Your task to perform on an android device: open app "Expedia: Hotels, Flights & Car" (install if not already installed) Image 0: 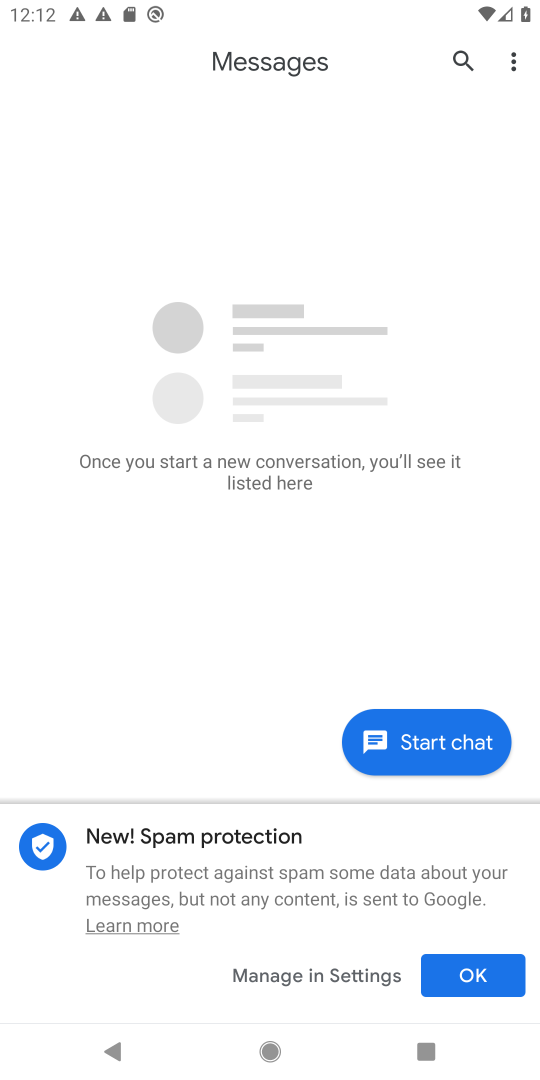
Step 0: press home button
Your task to perform on an android device: open app "Expedia: Hotels, Flights & Car" (install if not already installed) Image 1: 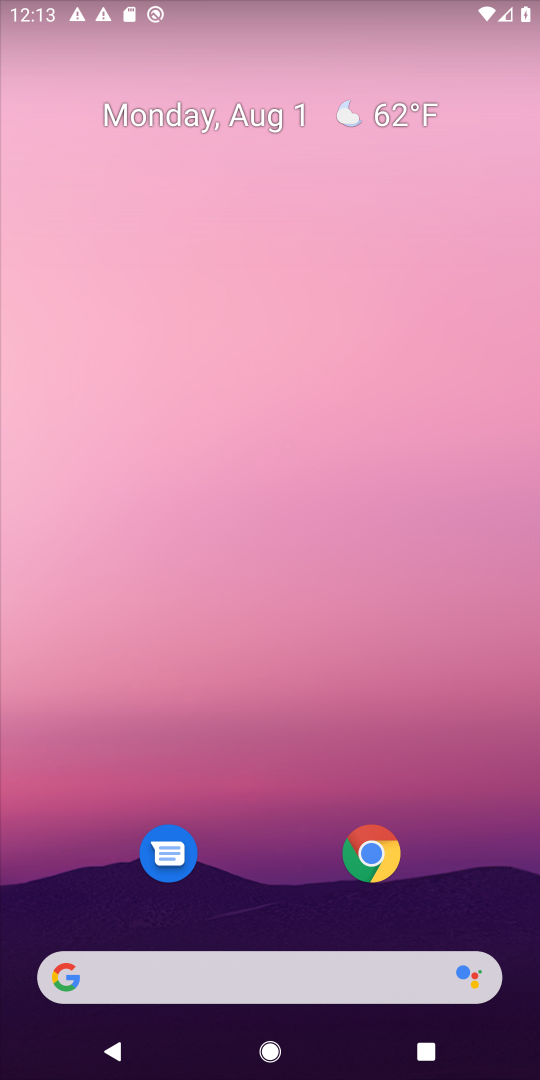
Step 1: drag from (313, 1055) to (372, 35)
Your task to perform on an android device: open app "Expedia: Hotels, Flights & Car" (install if not already installed) Image 2: 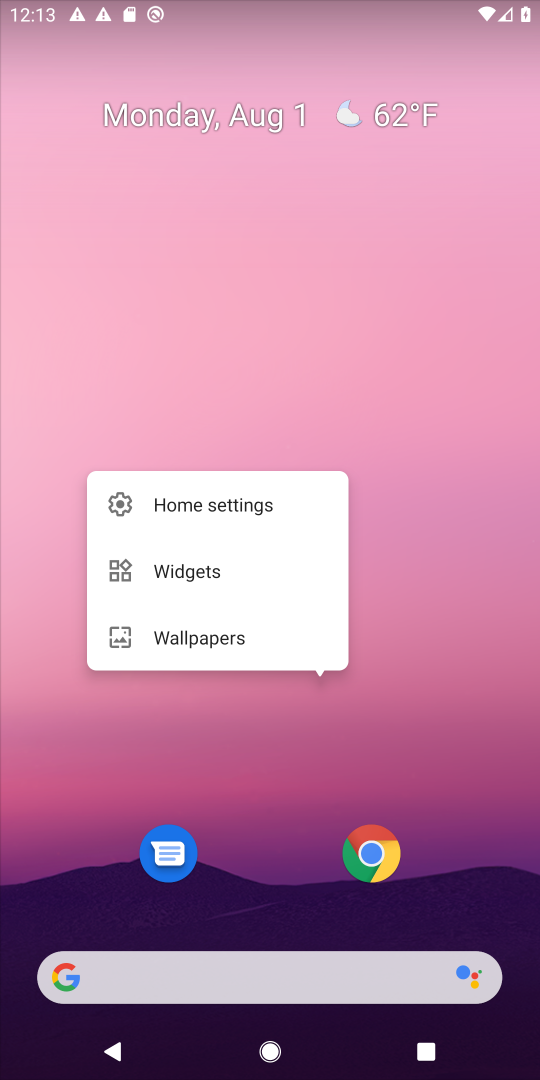
Step 2: click (320, 404)
Your task to perform on an android device: open app "Expedia: Hotels, Flights & Car" (install if not already installed) Image 3: 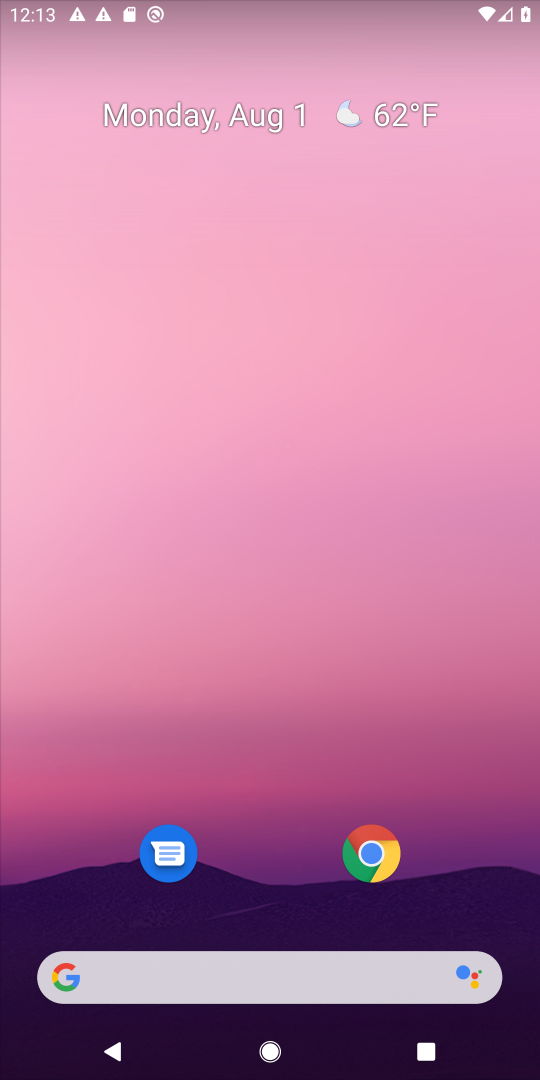
Step 3: drag from (296, 1056) to (266, 225)
Your task to perform on an android device: open app "Expedia: Hotels, Flights & Car" (install if not already installed) Image 4: 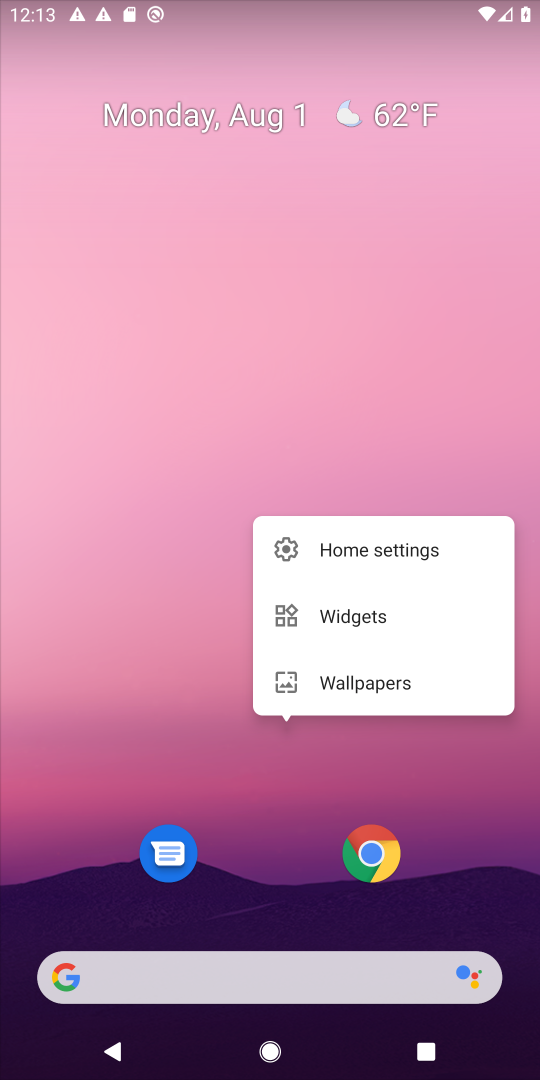
Step 4: click (215, 475)
Your task to perform on an android device: open app "Expedia: Hotels, Flights & Car" (install if not already installed) Image 5: 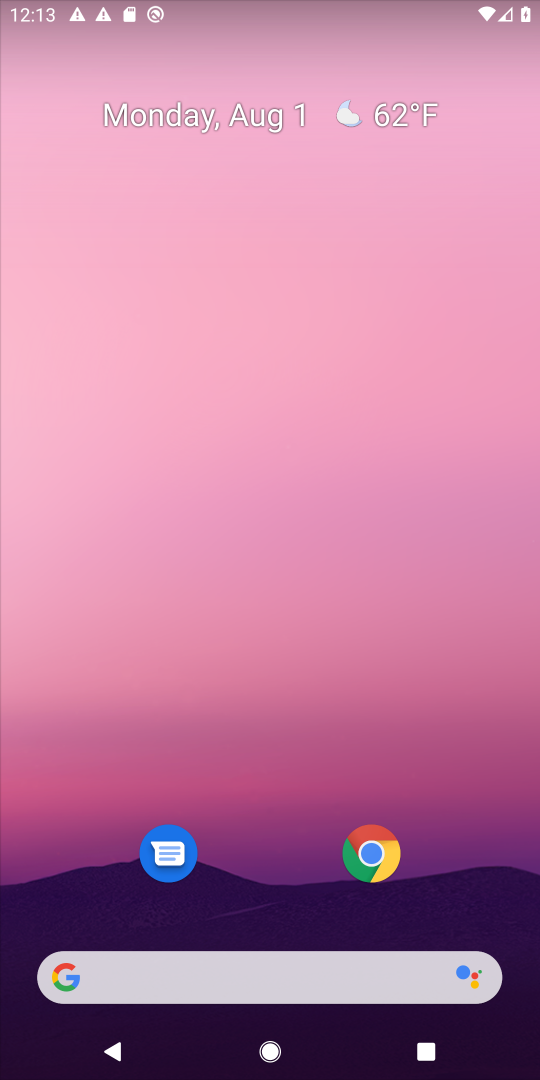
Step 5: drag from (306, 1069) to (300, 127)
Your task to perform on an android device: open app "Expedia: Hotels, Flights & Car" (install if not already installed) Image 6: 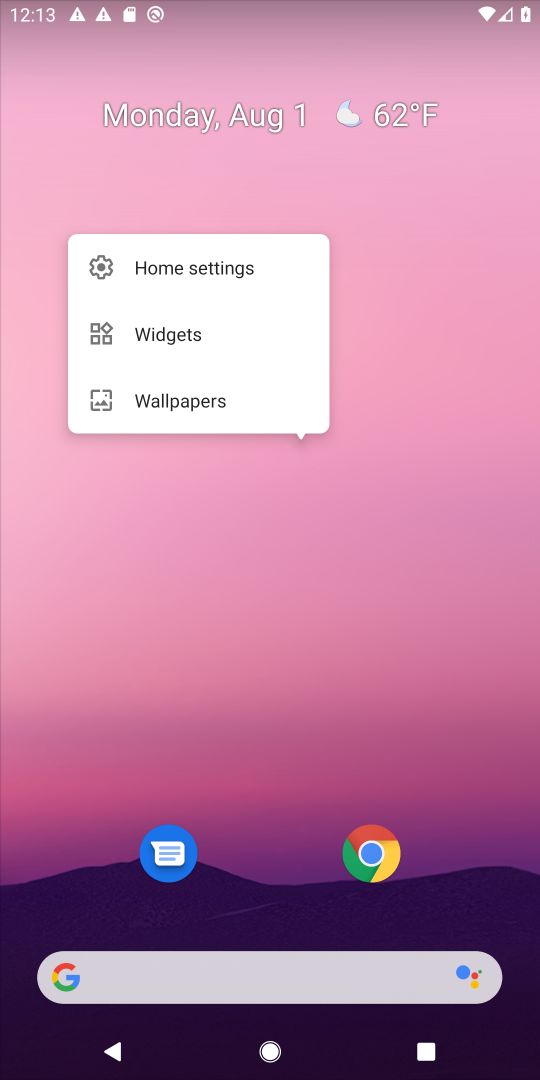
Step 6: click (252, 562)
Your task to perform on an android device: open app "Expedia: Hotels, Flights & Car" (install if not already installed) Image 7: 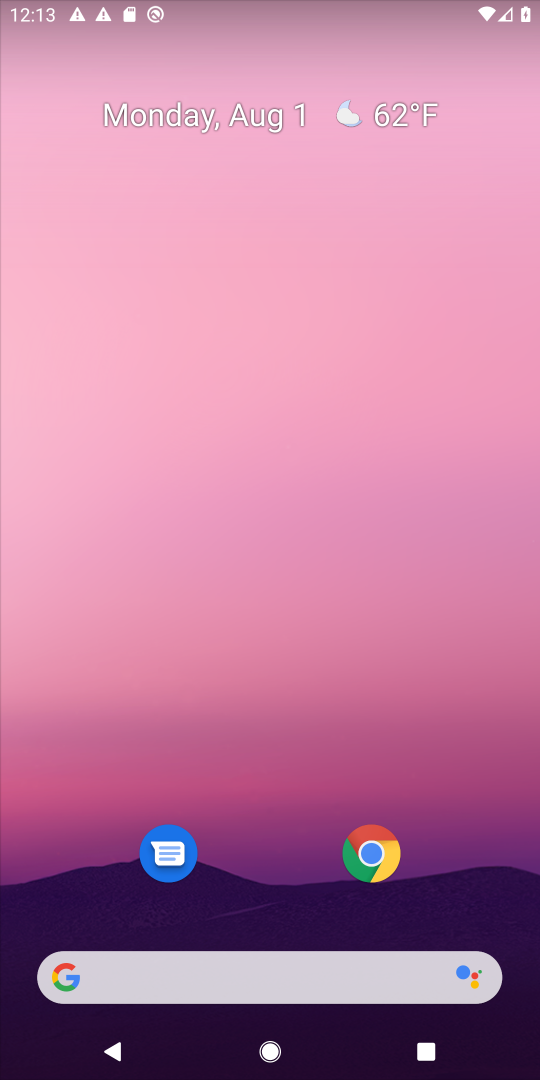
Step 7: drag from (309, 1047) to (314, 120)
Your task to perform on an android device: open app "Expedia: Hotels, Flights & Car" (install if not already installed) Image 8: 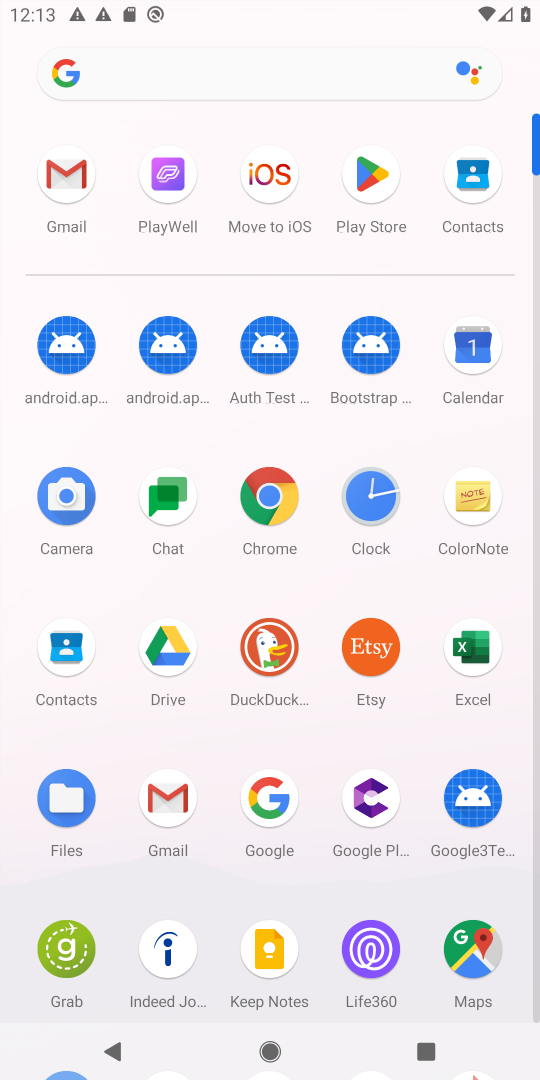
Step 8: click (373, 178)
Your task to perform on an android device: open app "Expedia: Hotels, Flights & Car" (install if not already installed) Image 9: 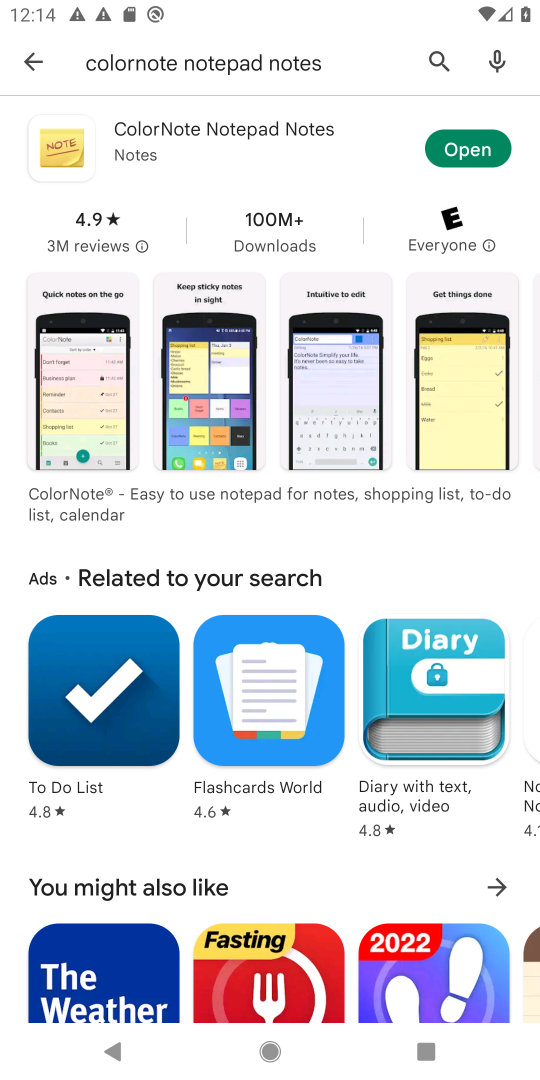
Step 9: click (437, 61)
Your task to perform on an android device: open app "Expedia: Hotels, Flights & Car" (install if not already installed) Image 10: 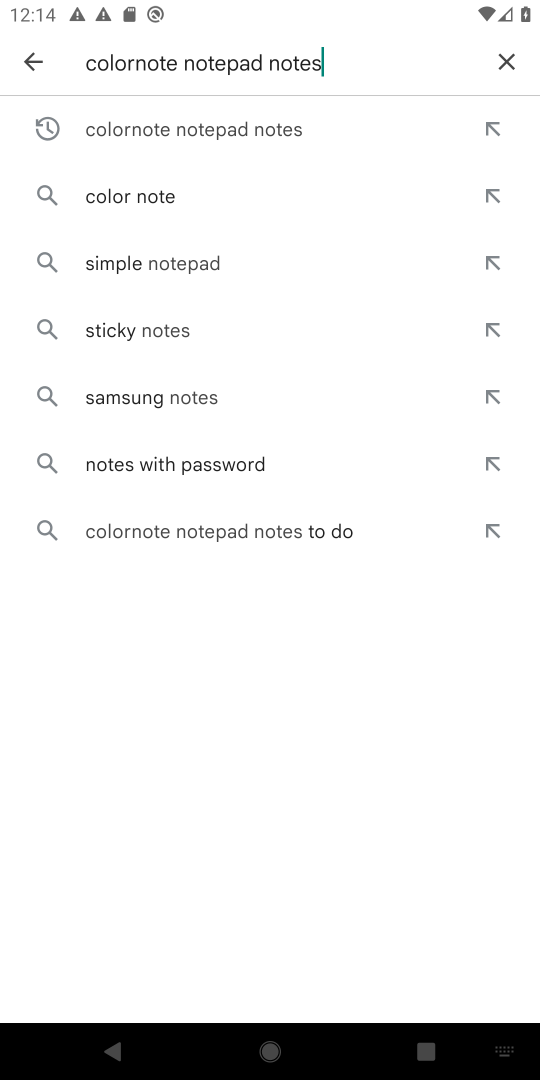
Step 10: click (509, 54)
Your task to perform on an android device: open app "Expedia: Hotels, Flights & Car" (install if not already installed) Image 11: 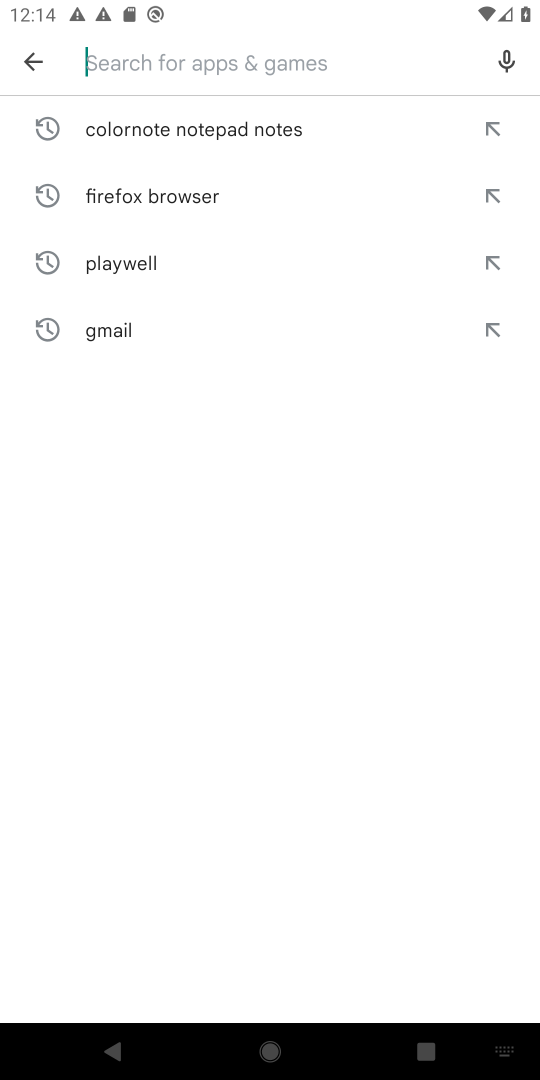
Step 11: type "Expedia: Hotels, Flights & Ca"
Your task to perform on an android device: open app "Expedia: Hotels, Flights & Car" (install if not already installed) Image 12: 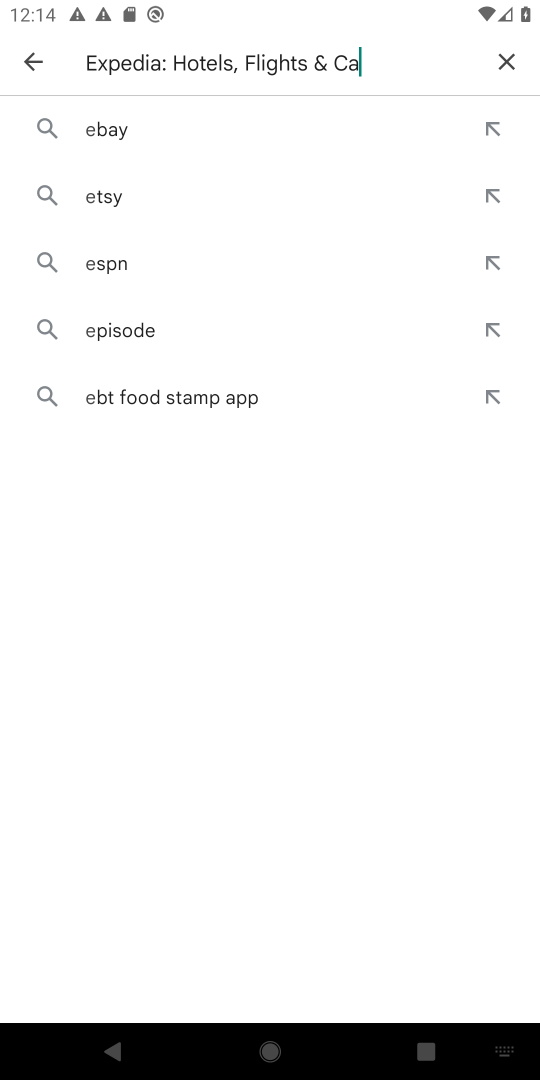
Step 12: type ""
Your task to perform on an android device: open app "Expedia: Hotels, Flights & Car" (install if not already installed) Image 13: 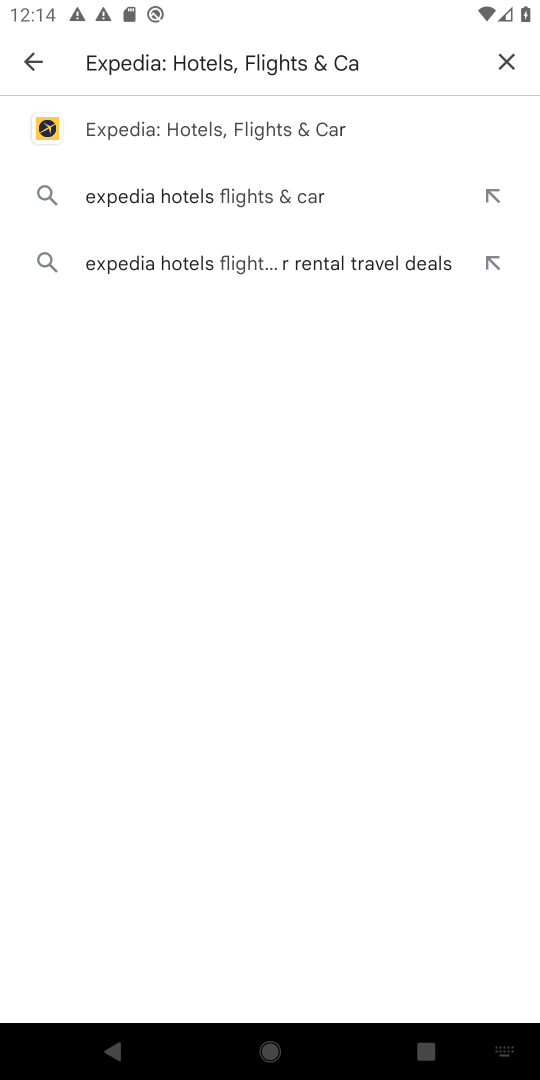
Step 13: click (212, 128)
Your task to perform on an android device: open app "Expedia: Hotels, Flights & Car" (install if not already installed) Image 14: 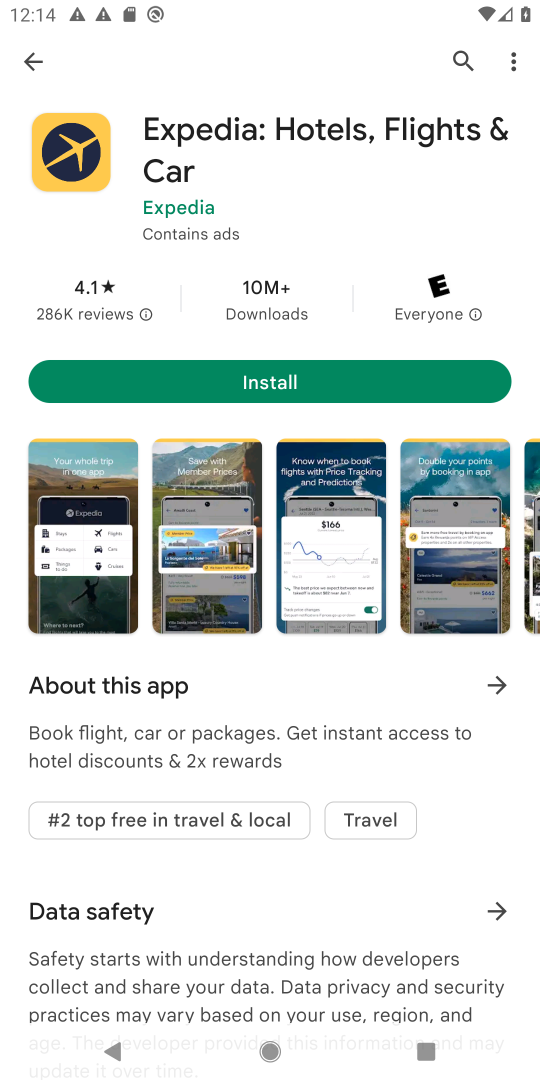
Step 14: click (282, 387)
Your task to perform on an android device: open app "Expedia: Hotels, Flights & Car" (install if not already installed) Image 15: 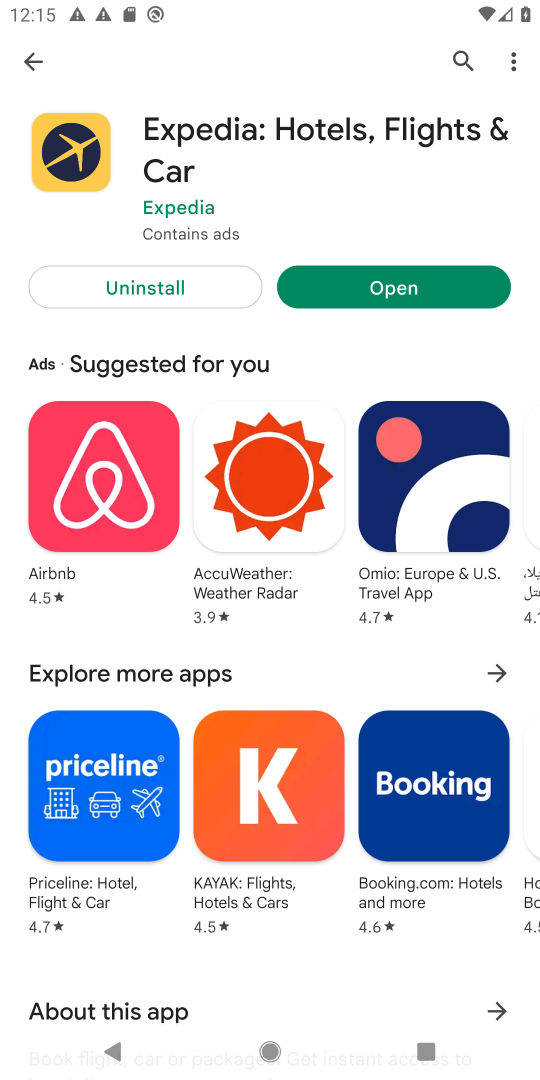
Step 15: task complete